Your task to perform on an android device: turn off smart reply in the gmail app Image 0: 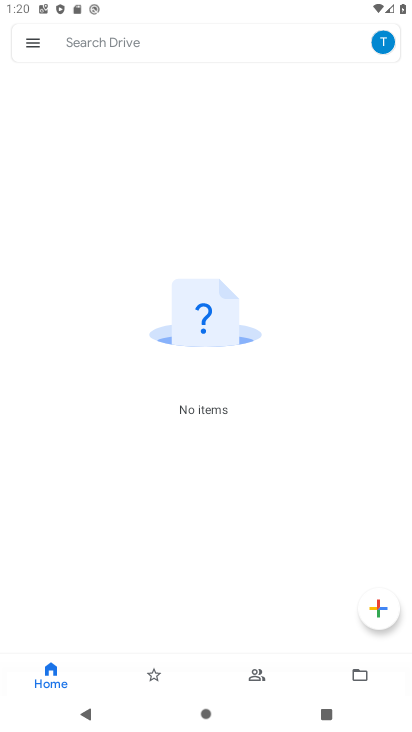
Step 0: press home button
Your task to perform on an android device: turn off smart reply in the gmail app Image 1: 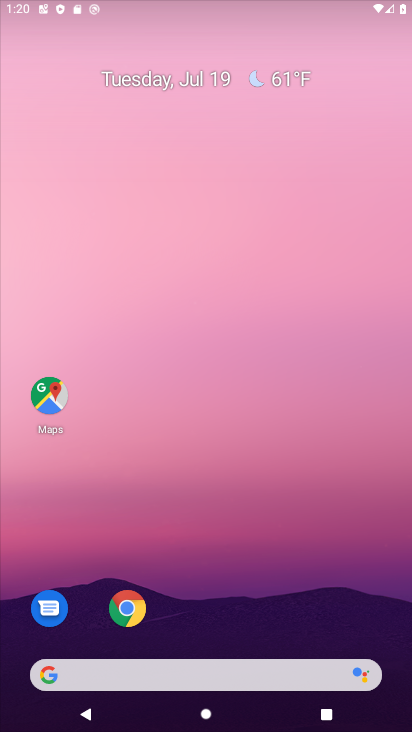
Step 1: drag from (223, 639) to (215, 124)
Your task to perform on an android device: turn off smart reply in the gmail app Image 2: 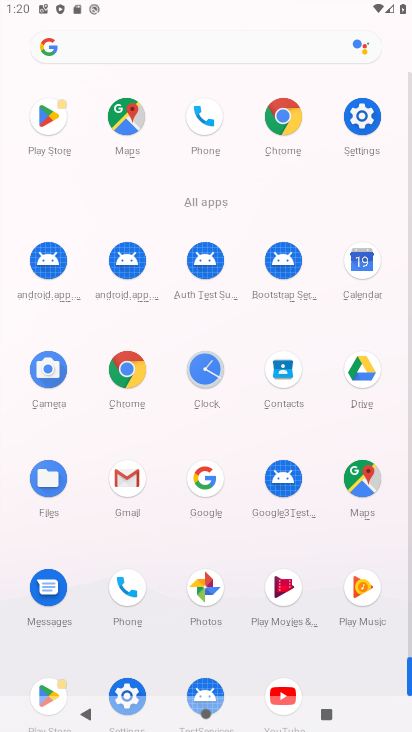
Step 2: click (133, 473)
Your task to perform on an android device: turn off smart reply in the gmail app Image 3: 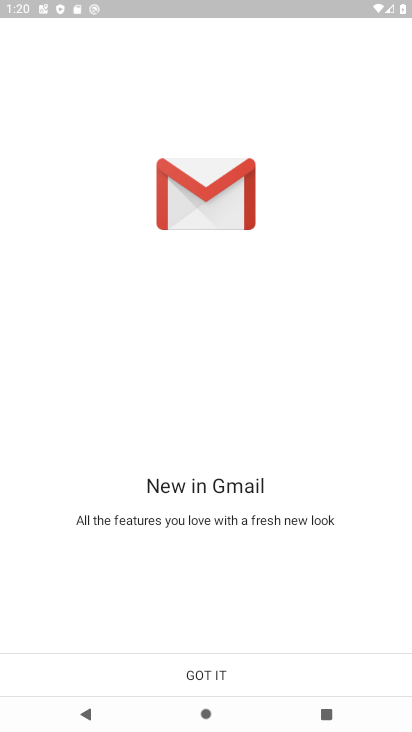
Step 3: click (199, 678)
Your task to perform on an android device: turn off smart reply in the gmail app Image 4: 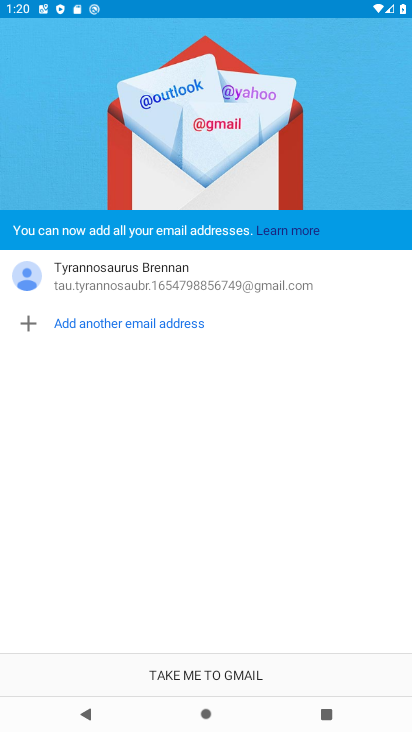
Step 4: click (183, 663)
Your task to perform on an android device: turn off smart reply in the gmail app Image 5: 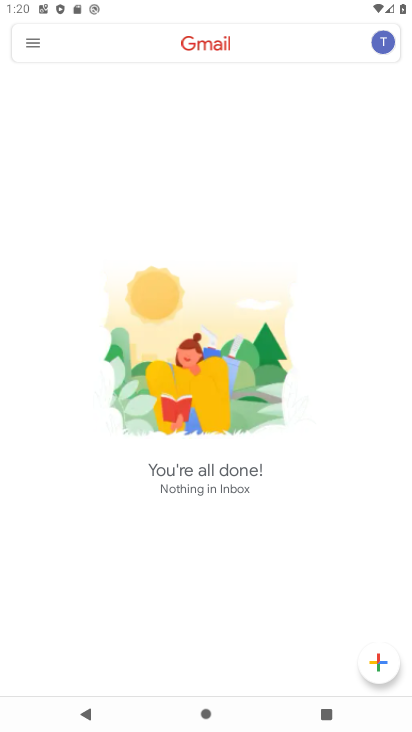
Step 5: click (32, 42)
Your task to perform on an android device: turn off smart reply in the gmail app Image 6: 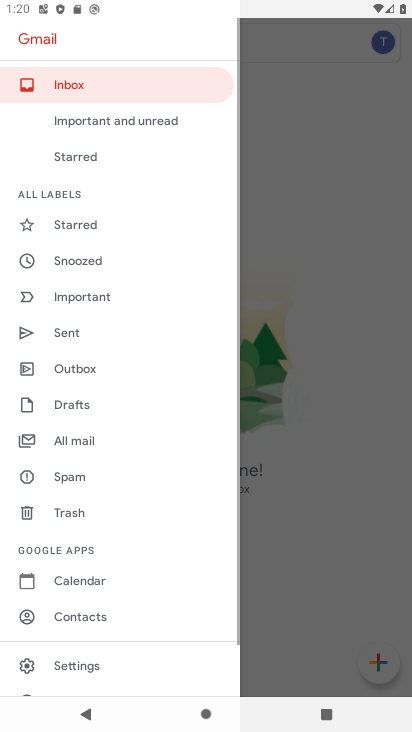
Step 6: click (93, 190)
Your task to perform on an android device: turn off smart reply in the gmail app Image 7: 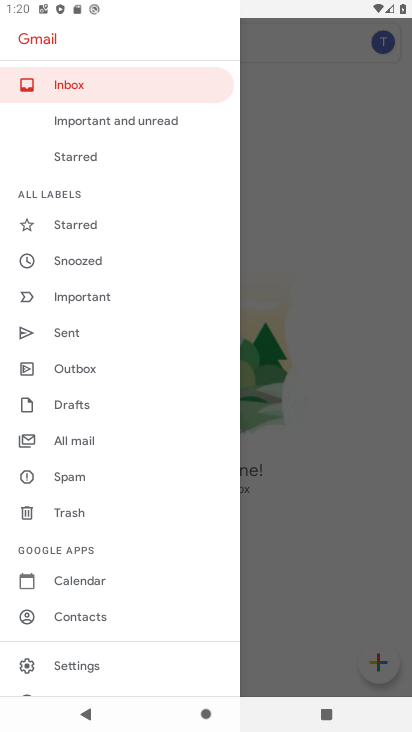
Step 7: click (61, 665)
Your task to perform on an android device: turn off smart reply in the gmail app Image 8: 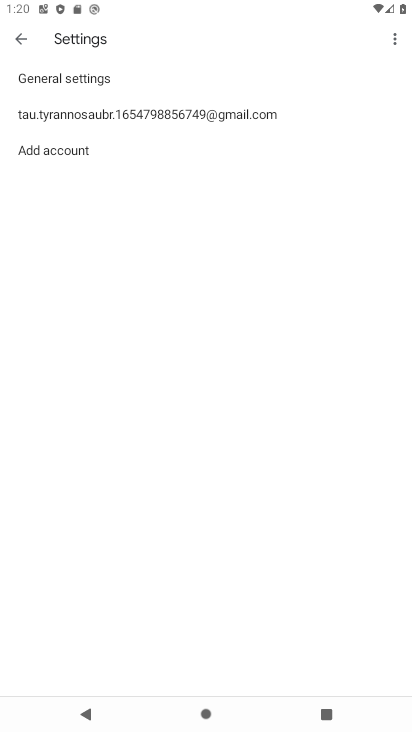
Step 8: click (119, 117)
Your task to perform on an android device: turn off smart reply in the gmail app Image 9: 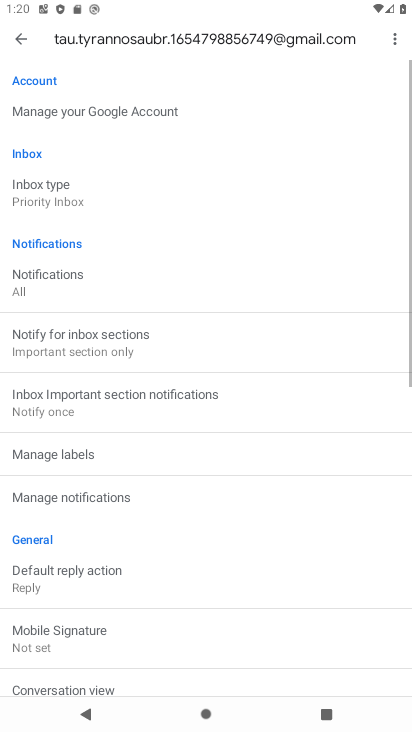
Step 9: drag from (222, 619) to (225, 159)
Your task to perform on an android device: turn off smart reply in the gmail app Image 10: 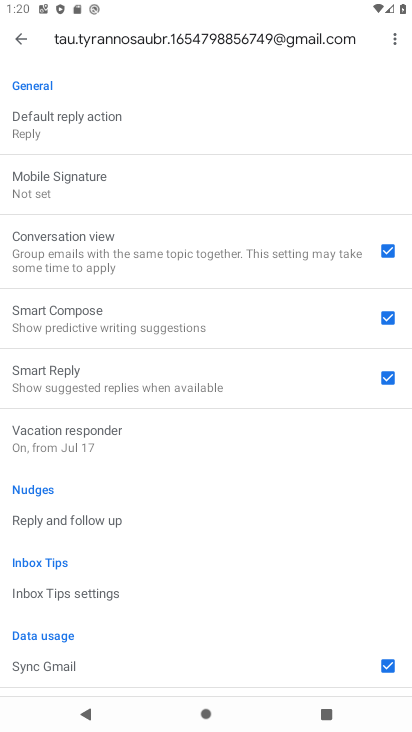
Step 10: click (386, 377)
Your task to perform on an android device: turn off smart reply in the gmail app Image 11: 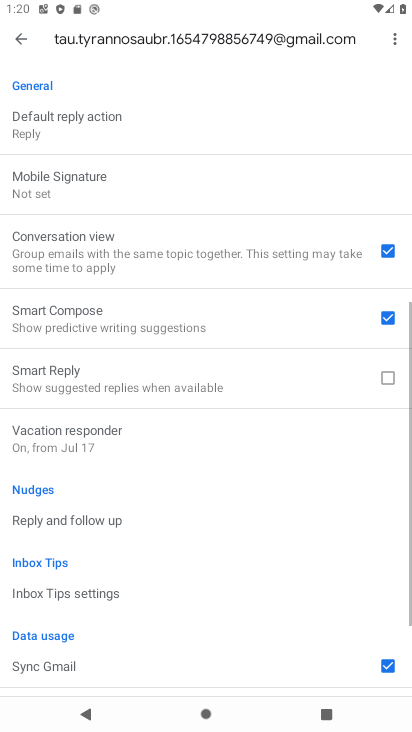
Step 11: task complete